Your task to perform on an android device: When is my next meeting? Image 0: 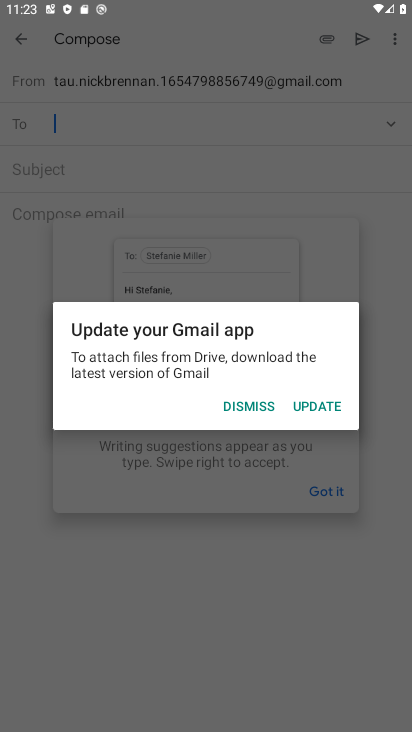
Step 0: press home button
Your task to perform on an android device: When is my next meeting? Image 1: 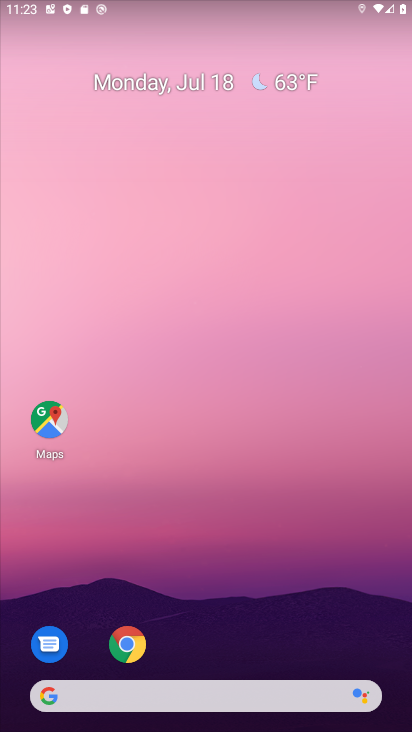
Step 1: drag from (232, 725) to (233, 296)
Your task to perform on an android device: When is my next meeting? Image 2: 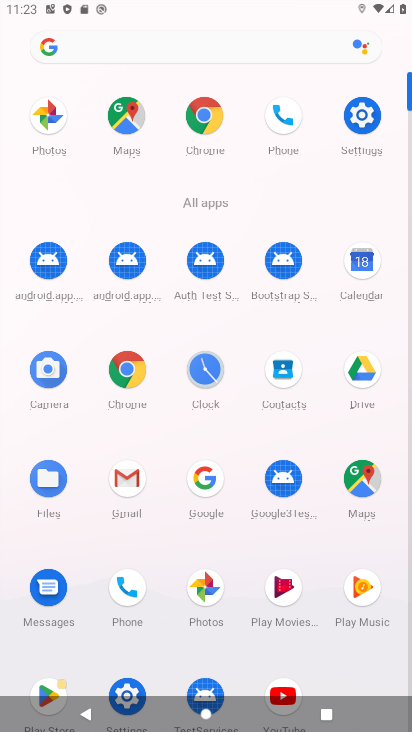
Step 2: click (356, 274)
Your task to perform on an android device: When is my next meeting? Image 3: 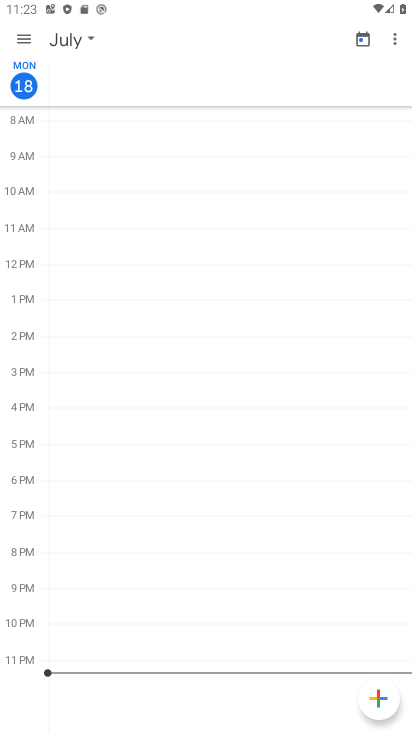
Step 3: click (93, 39)
Your task to perform on an android device: When is my next meeting? Image 4: 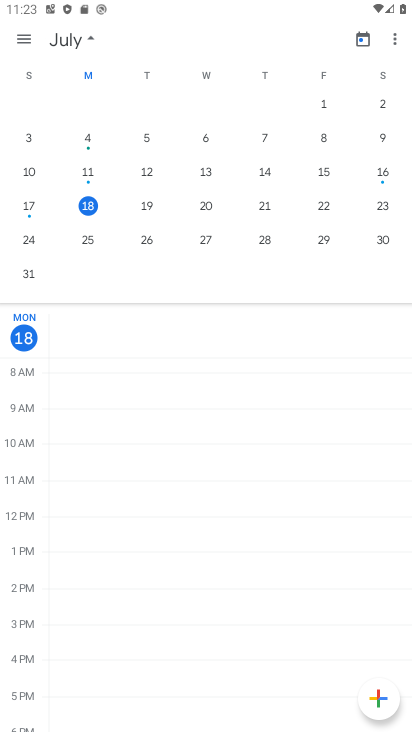
Step 4: click (157, 202)
Your task to perform on an android device: When is my next meeting? Image 5: 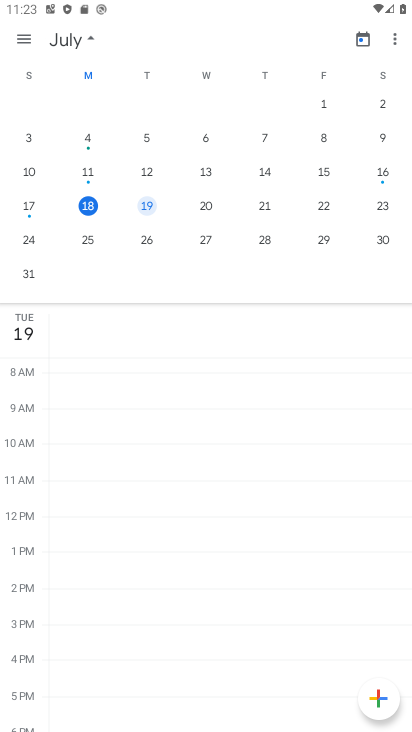
Step 5: click (136, 204)
Your task to perform on an android device: When is my next meeting? Image 6: 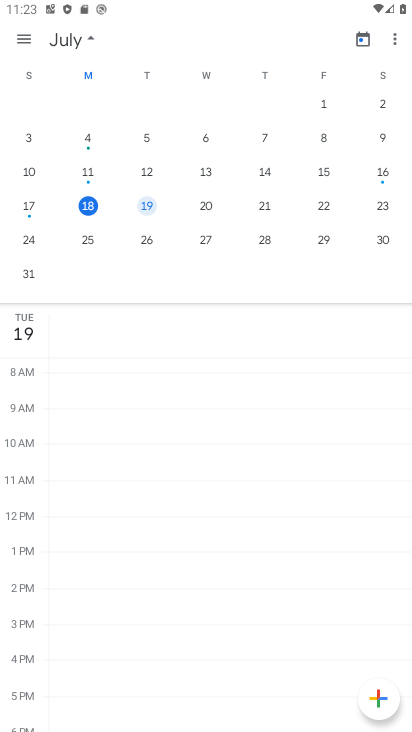
Step 6: task complete